Your task to perform on an android device: turn on wifi Image 0: 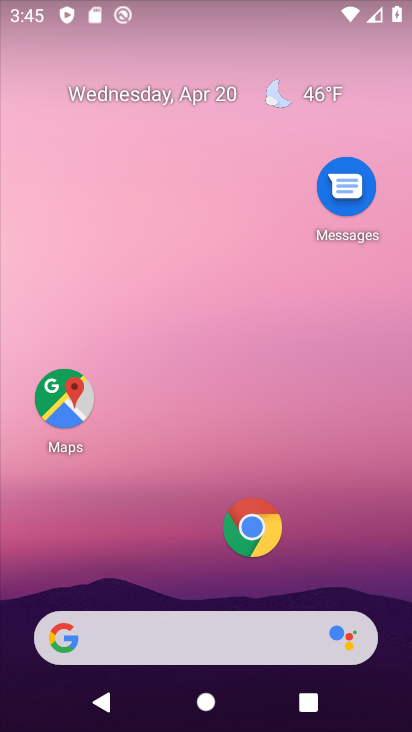
Step 0: press home button
Your task to perform on an android device: turn on wifi Image 1: 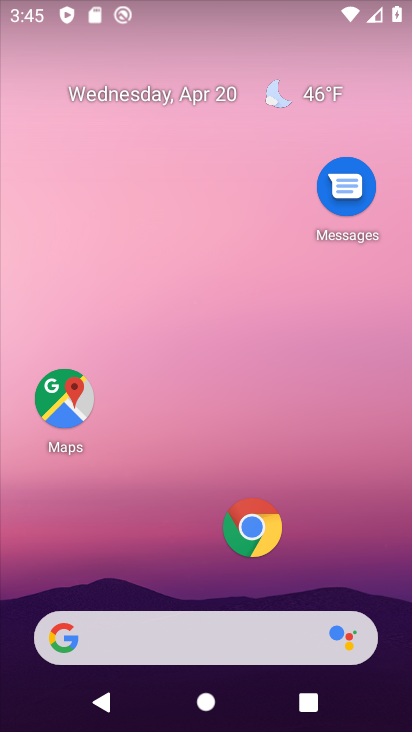
Step 1: drag from (294, 220) to (325, 87)
Your task to perform on an android device: turn on wifi Image 2: 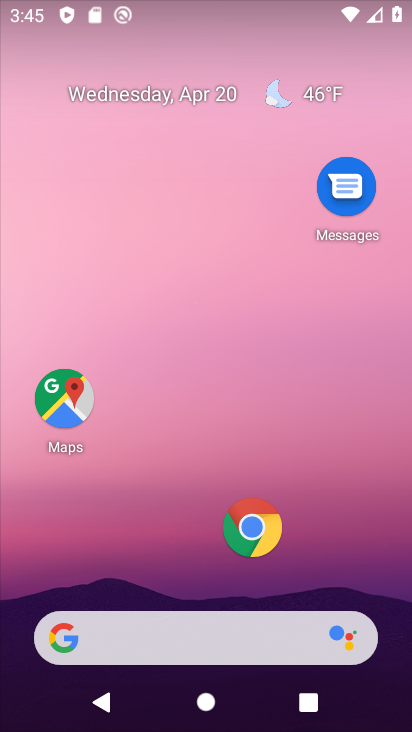
Step 2: drag from (174, 638) to (314, 35)
Your task to perform on an android device: turn on wifi Image 3: 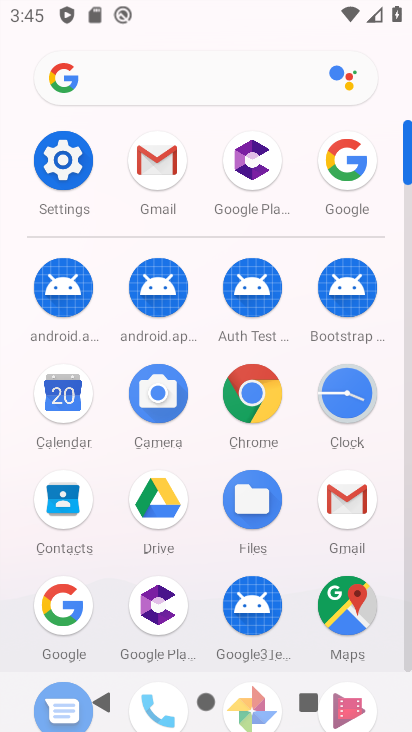
Step 3: click (68, 170)
Your task to perform on an android device: turn on wifi Image 4: 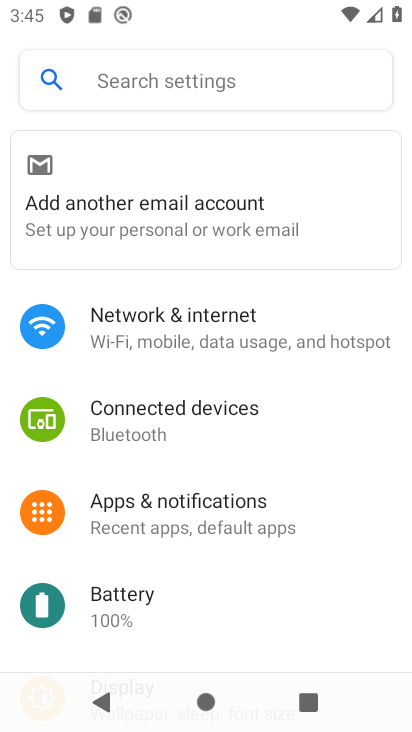
Step 4: click (152, 316)
Your task to perform on an android device: turn on wifi Image 5: 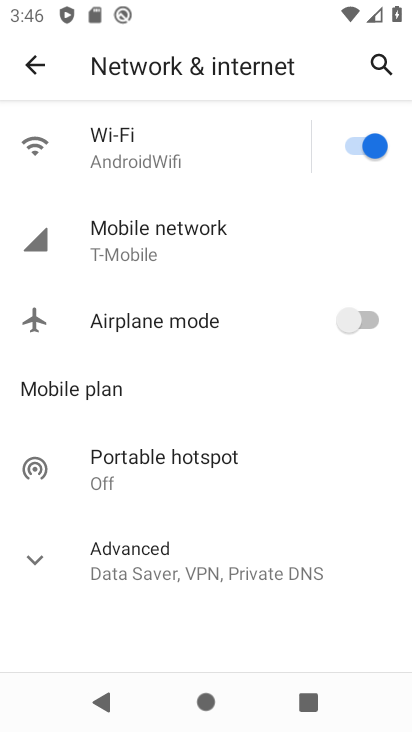
Step 5: task complete